Your task to perform on an android device: Go to Wikipedia Image 0: 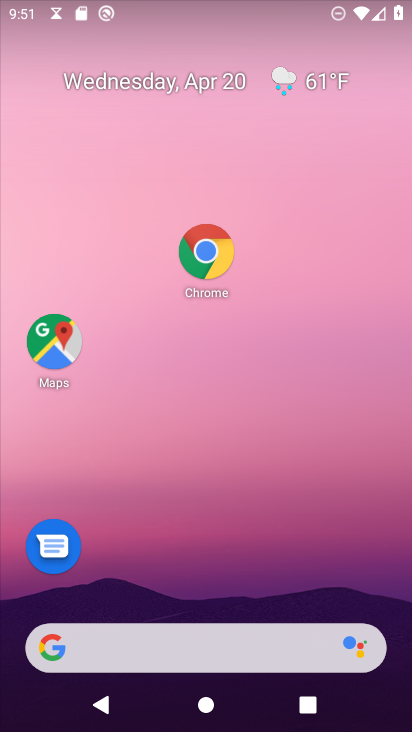
Step 0: drag from (120, 608) to (141, 252)
Your task to perform on an android device: Go to Wikipedia Image 1: 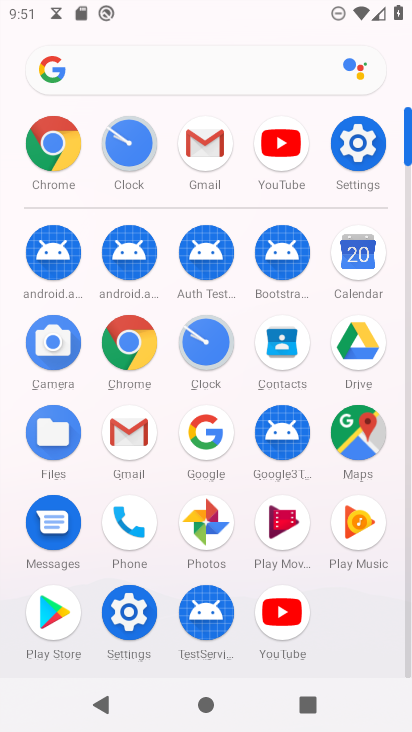
Step 1: click (206, 437)
Your task to perform on an android device: Go to Wikipedia Image 2: 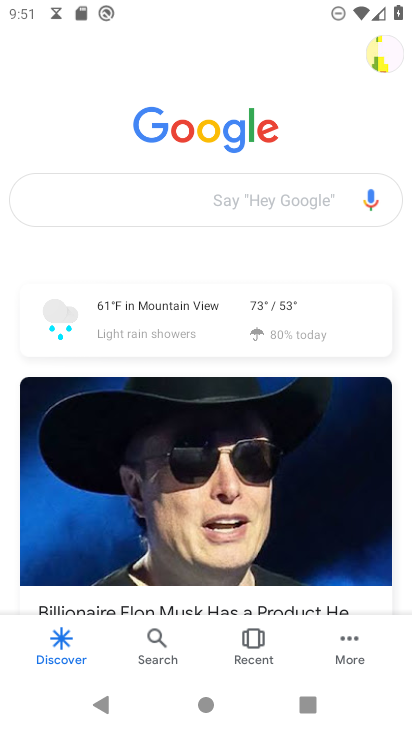
Step 2: click (132, 206)
Your task to perform on an android device: Go to Wikipedia Image 3: 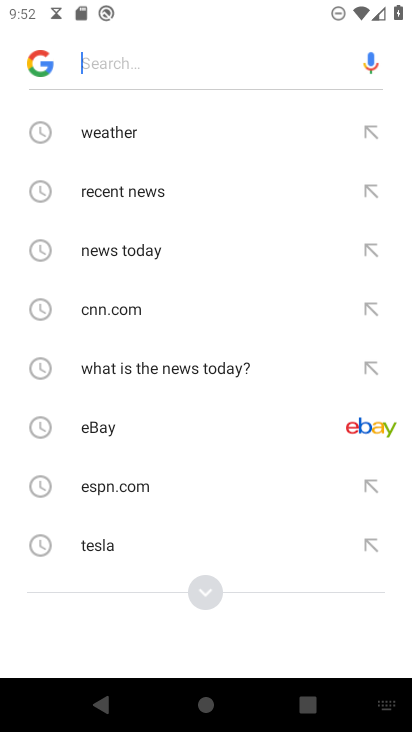
Step 3: type "wikipedia"
Your task to perform on an android device: Go to Wikipedia Image 4: 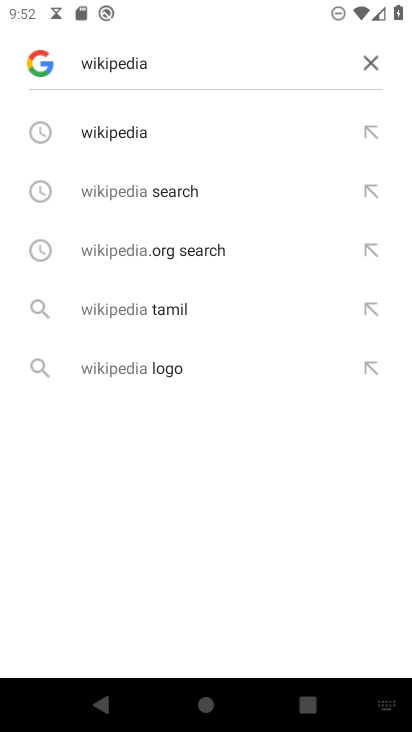
Step 4: click (78, 130)
Your task to perform on an android device: Go to Wikipedia Image 5: 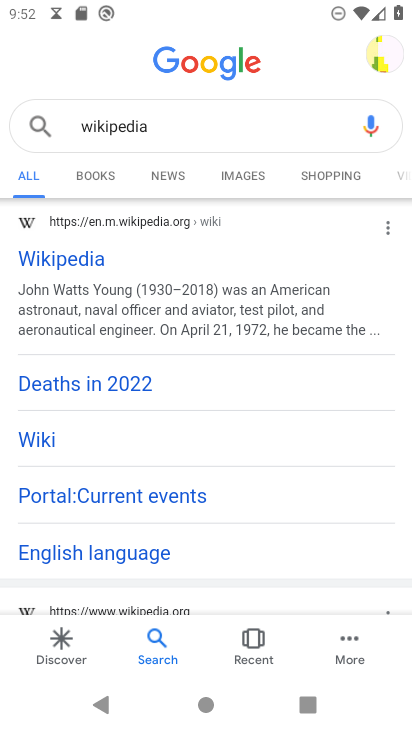
Step 5: click (94, 256)
Your task to perform on an android device: Go to Wikipedia Image 6: 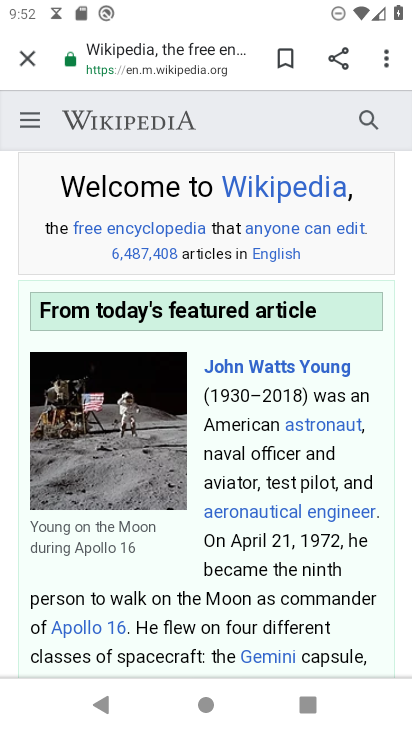
Step 6: task complete